Your task to perform on an android device: see creations saved in the google photos Image 0: 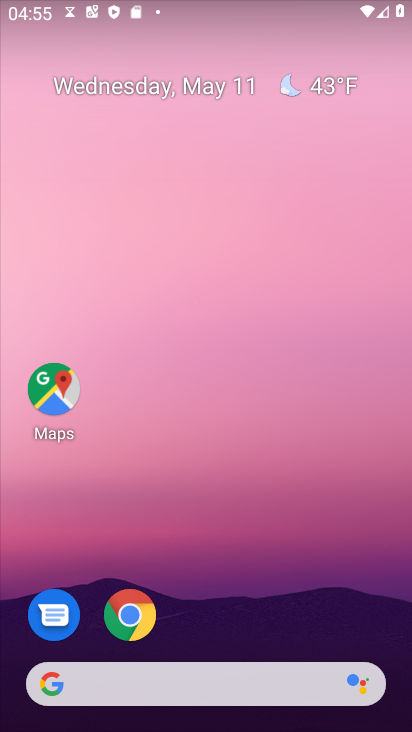
Step 0: drag from (215, 461) to (161, 4)
Your task to perform on an android device: see creations saved in the google photos Image 1: 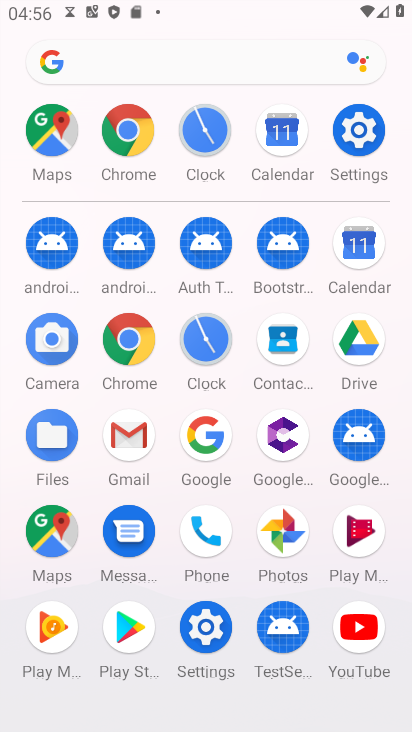
Step 1: drag from (6, 546) to (0, 223)
Your task to perform on an android device: see creations saved in the google photos Image 2: 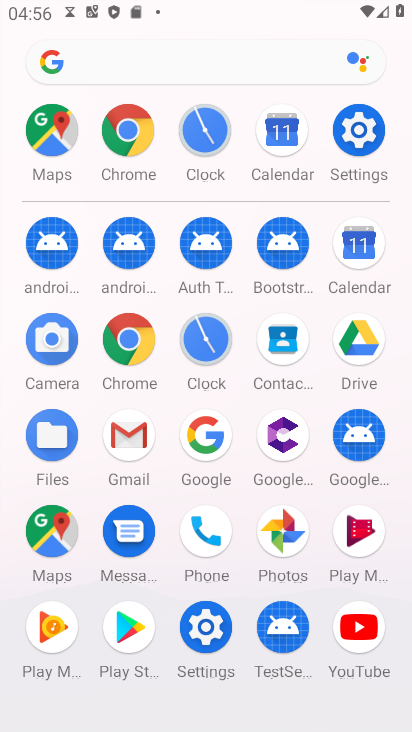
Step 2: click (281, 529)
Your task to perform on an android device: see creations saved in the google photos Image 3: 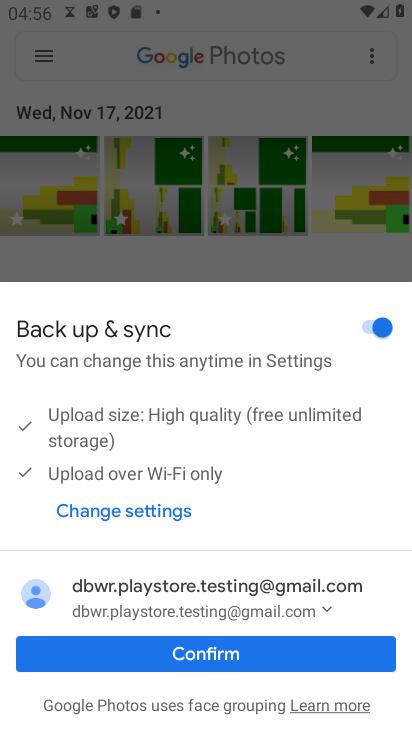
Step 3: click (159, 639)
Your task to perform on an android device: see creations saved in the google photos Image 4: 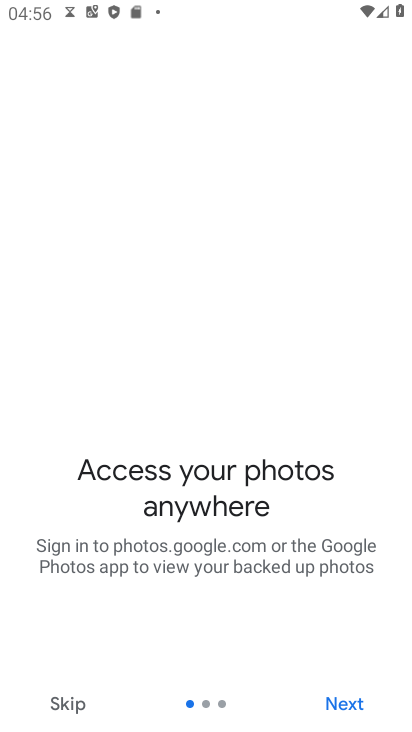
Step 4: click (341, 691)
Your task to perform on an android device: see creations saved in the google photos Image 5: 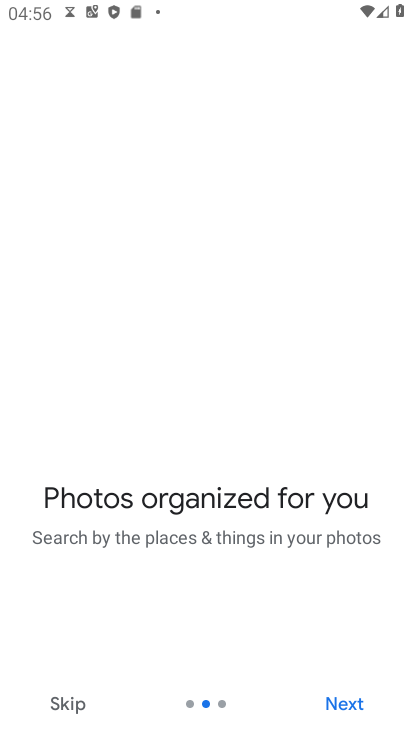
Step 5: click (341, 691)
Your task to perform on an android device: see creations saved in the google photos Image 6: 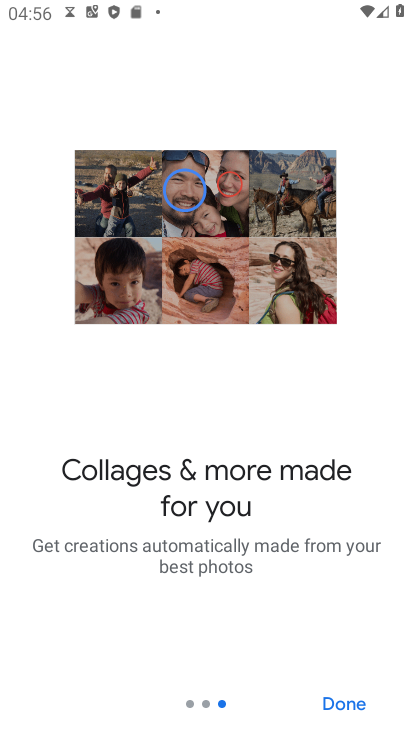
Step 6: click (341, 691)
Your task to perform on an android device: see creations saved in the google photos Image 7: 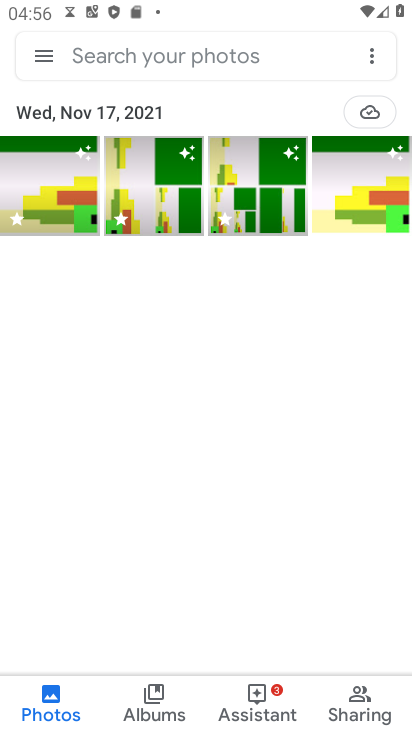
Step 7: task complete